Your task to perform on an android device: Open Yahoo.com Image 0: 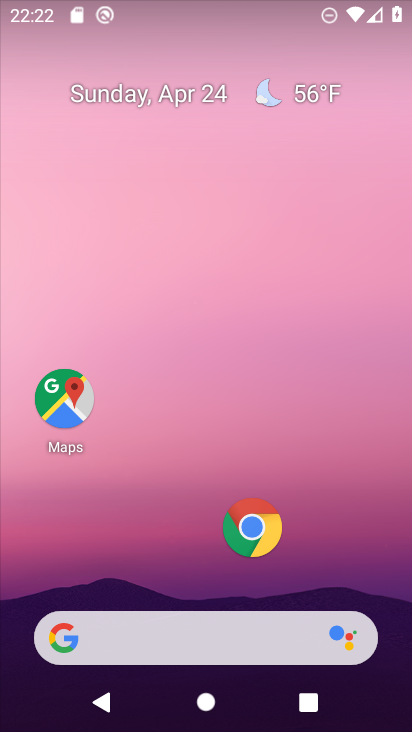
Step 0: click (266, 532)
Your task to perform on an android device: Open Yahoo.com Image 1: 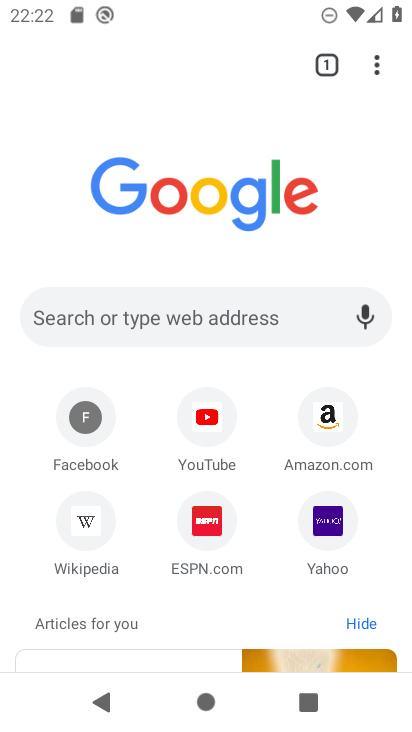
Step 1: click (336, 514)
Your task to perform on an android device: Open Yahoo.com Image 2: 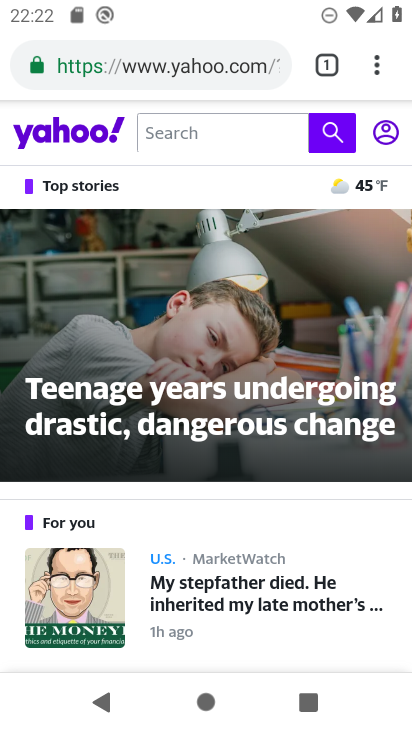
Step 2: task complete